Your task to perform on an android device: open chrome privacy settings Image 0: 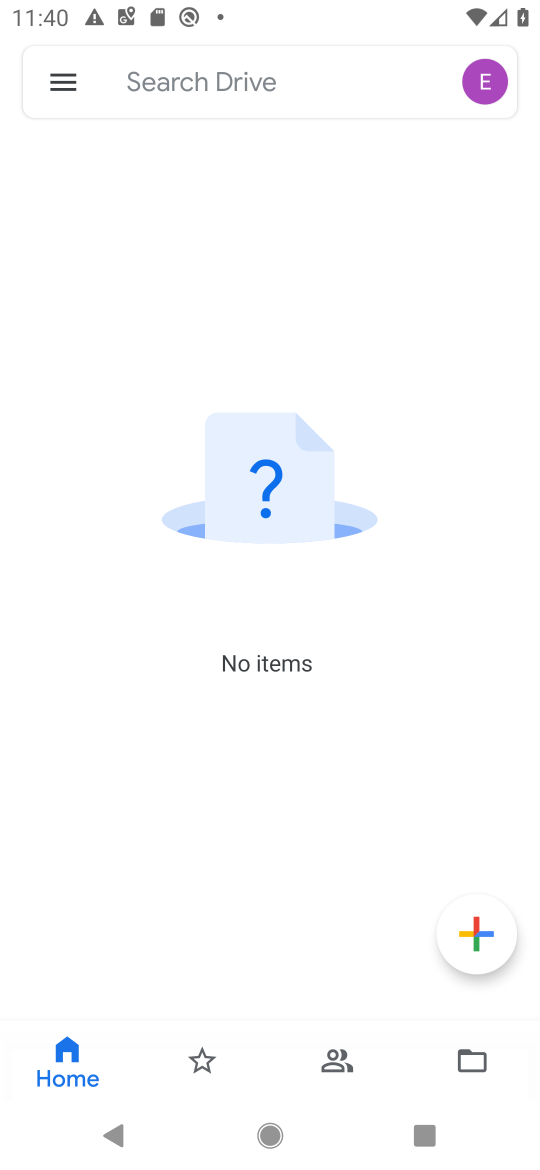
Step 0: press home button
Your task to perform on an android device: open chrome privacy settings Image 1: 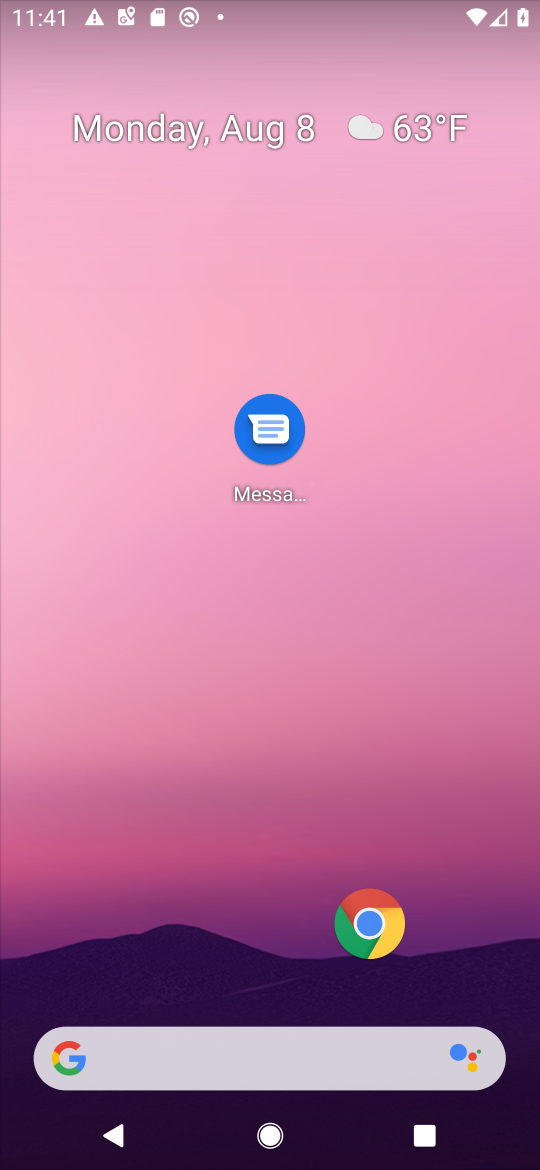
Step 1: click (373, 933)
Your task to perform on an android device: open chrome privacy settings Image 2: 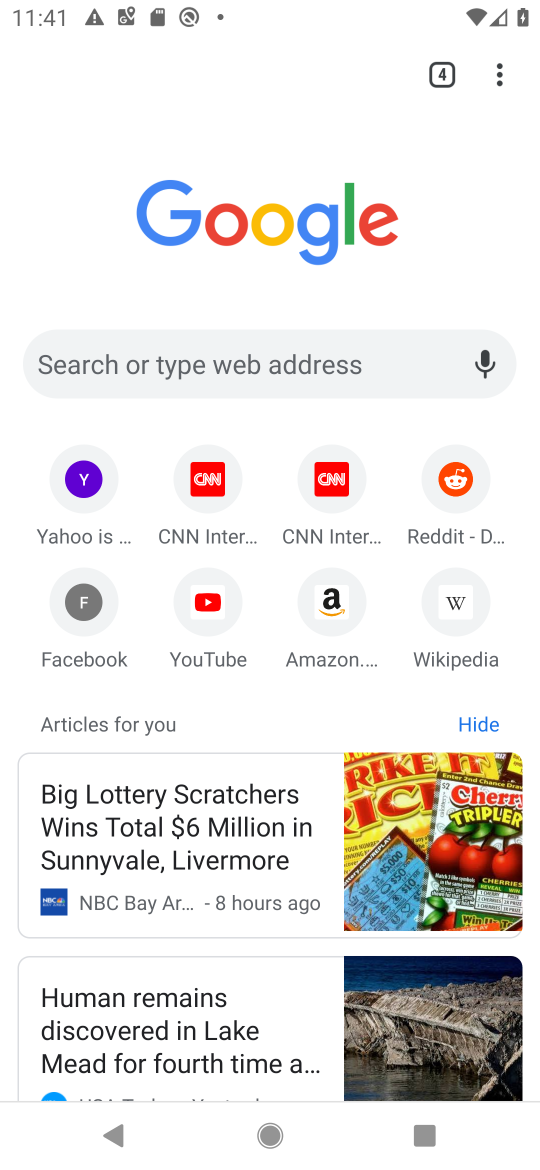
Step 2: click (505, 78)
Your task to perform on an android device: open chrome privacy settings Image 3: 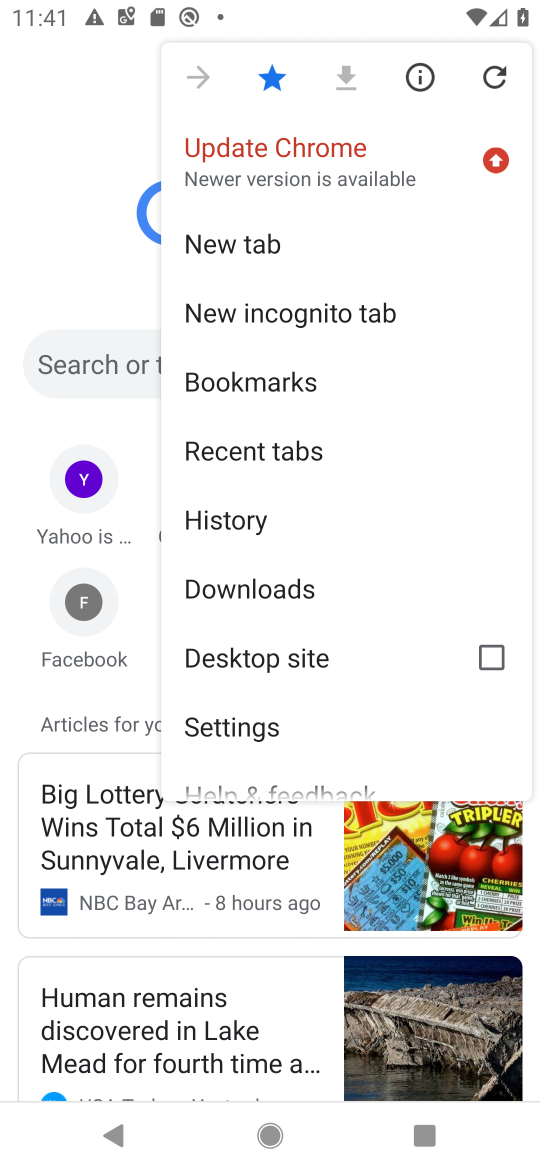
Step 3: click (214, 734)
Your task to perform on an android device: open chrome privacy settings Image 4: 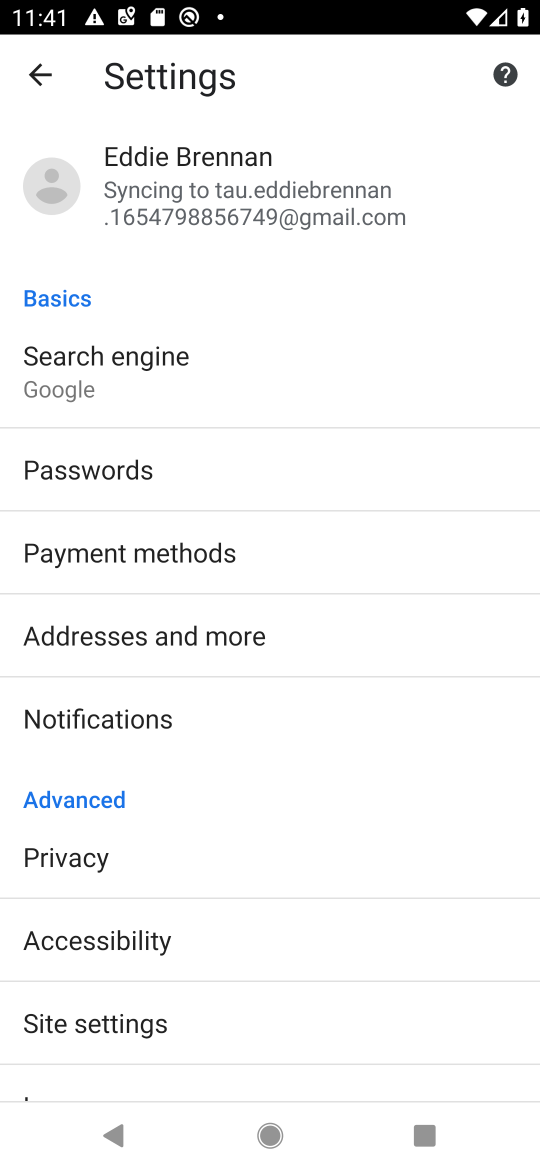
Step 4: click (64, 862)
Your task to perform on an android device: open chrome privacy settings Image 5: 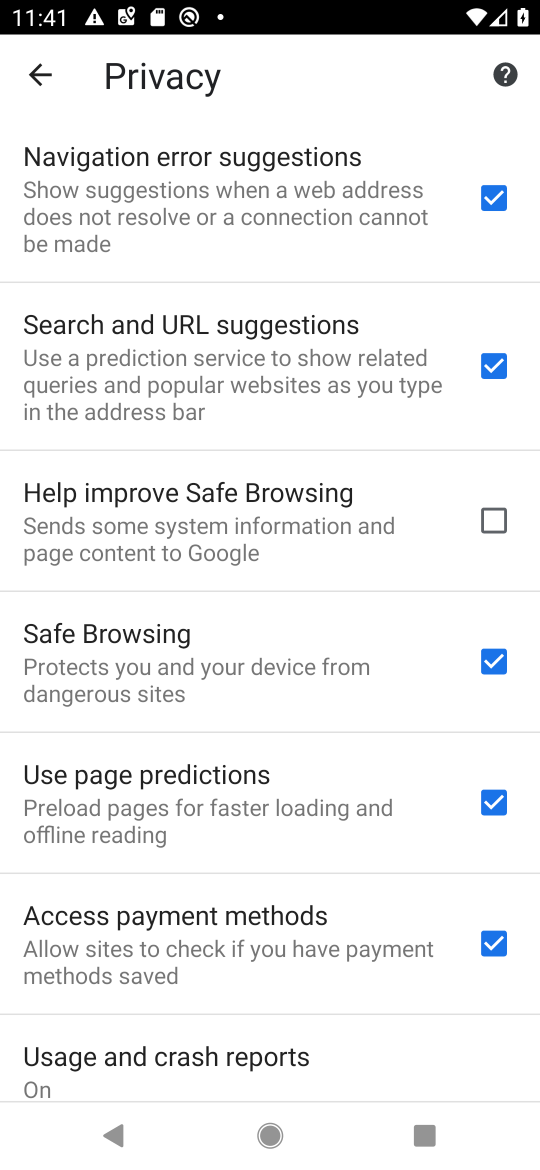
Step 5: task complete